Your task to perform on an android device: allow cookies in the chrome app Image 0: 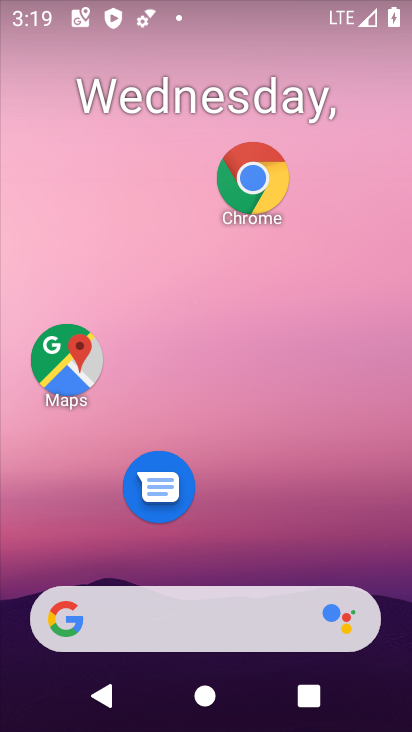
Step 0: click (254, 175)
Your task to perform on an android device: allow cookies in the chrome app Image 1: 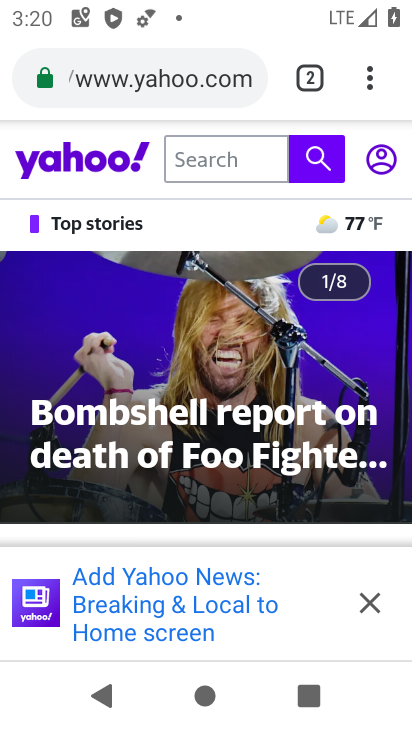
Step 1: click (367, 86)
Your task to perform on an android device: allow cookies in the chrome app Image 2: 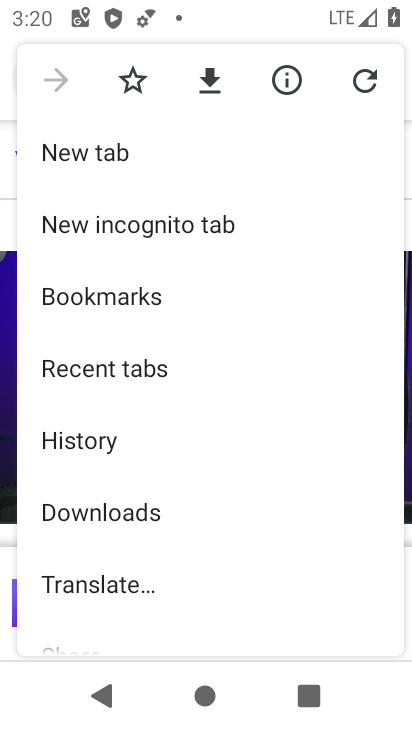
Step 2: drag from (142, 571) to (213, 270)
Your task to perform on an android device: allow cookies in the chrome app Image 3: 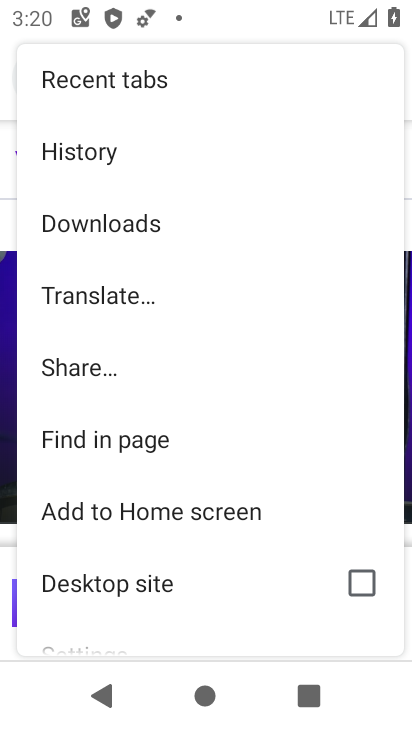
Step 3: drag from (109, 601) to (165, 377)
Your task to perform on an android device: allow cookies in the chrome app Image 4: 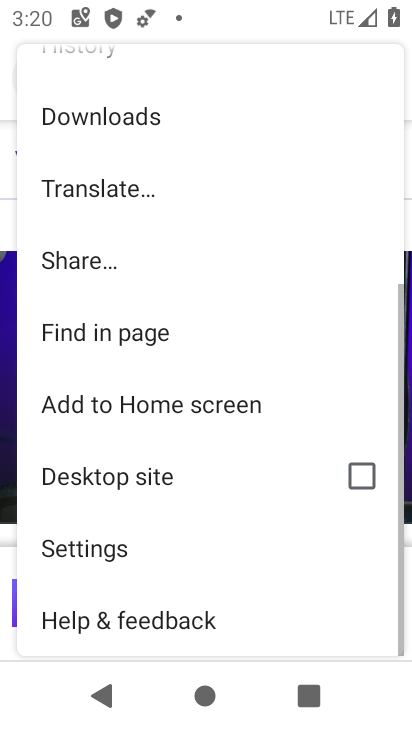
Step 4: click (100, 536)
Your task to perform on an android device: allow cookies in the chrome app Image 5: 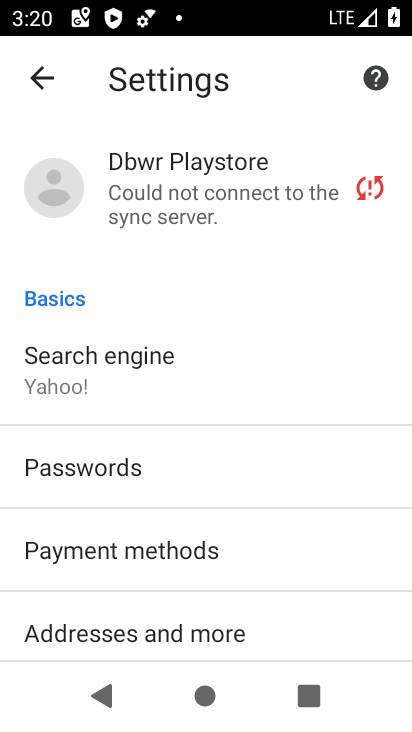
Step 5: drag from (104, 570) to (193, 241)
Your task to perform on an android device: allow cookies in the chrome app Image 6: 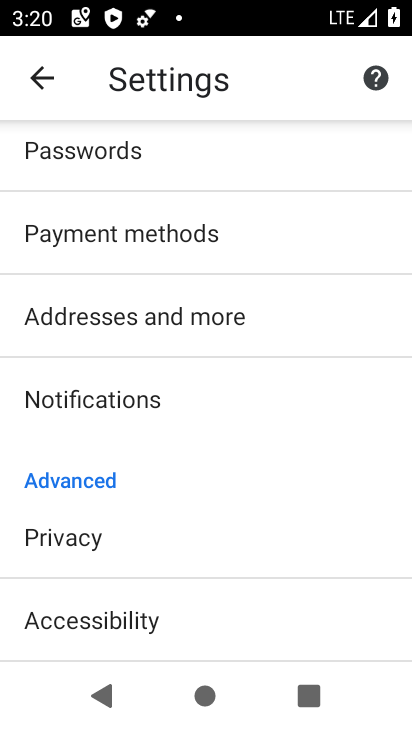
Step 6: drag from (119, 599) to (213, 277)
Your task to perform on an android device: allow cookies in the chrome app Image 7: 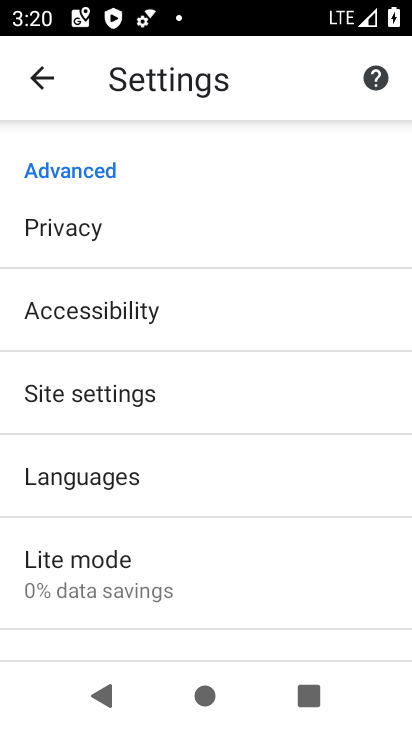
Step 7: click (135, 376)
Your task to perform on an android device: allow cookies in the chrome app Image 8: 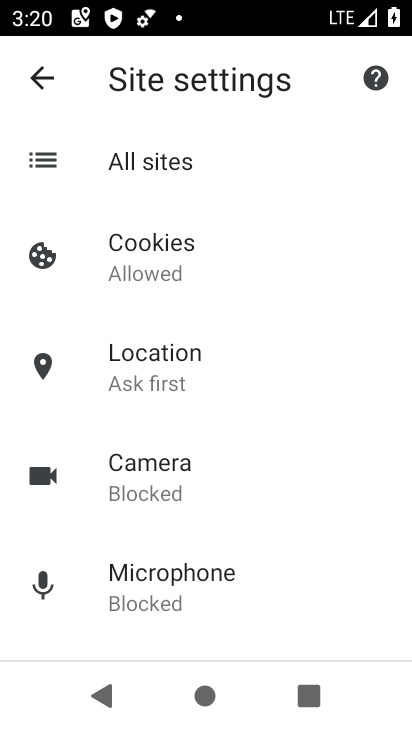
Step 8: click (152, 270)
Your task to perform on an android device: allow cookies in the chrome app Image 9: 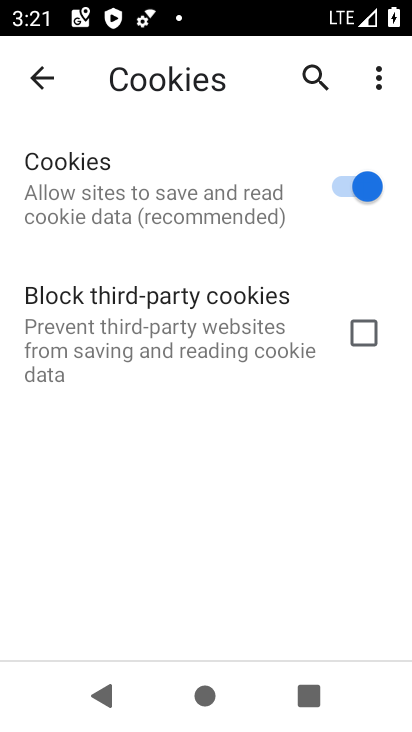
Step 9: task complete